Your task to perform on an android device: turn off data saver in the chrome app Image 0: 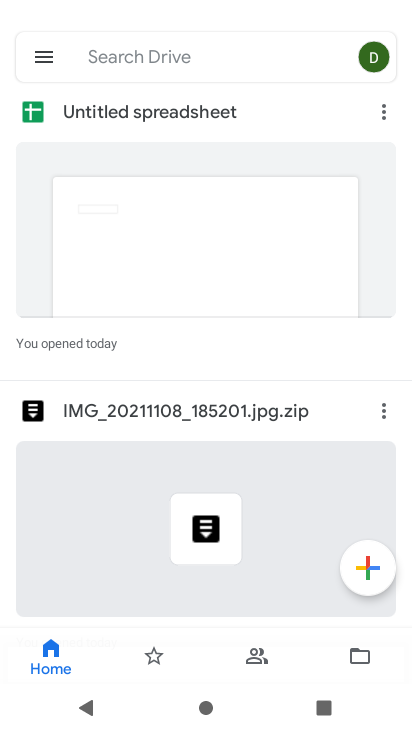
Step 0: press home button
Your task to perform on an android device: turn off data saver in the chrome app Image 1: 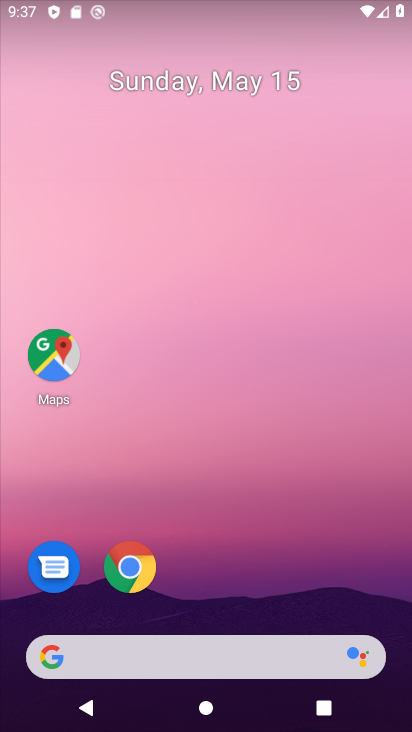
Step 1: click (133, 570)
Your task to perform on an android device: turn off data saver in the chrome app Image 2: 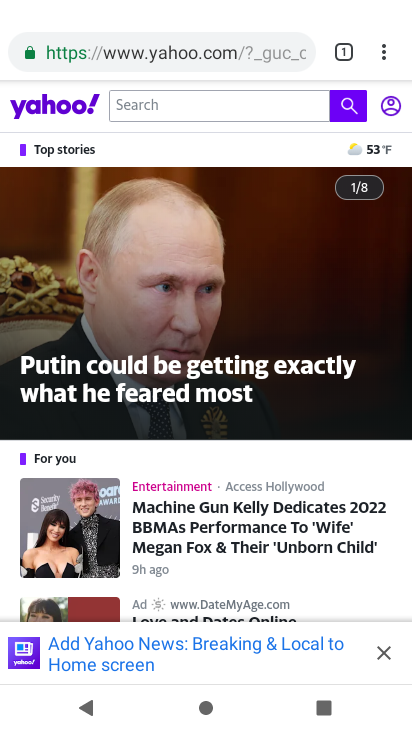
Step 2: click (373, 47)
Your task to perform on an android device: turn off data saver in the chrome app Image 3: 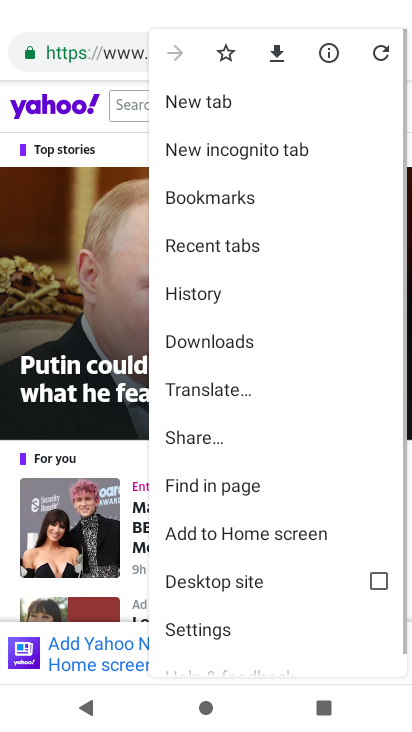
Step 3: click (234, 627)
Your task to perform on an android device: turn off data saver in the chrome app Image 4: 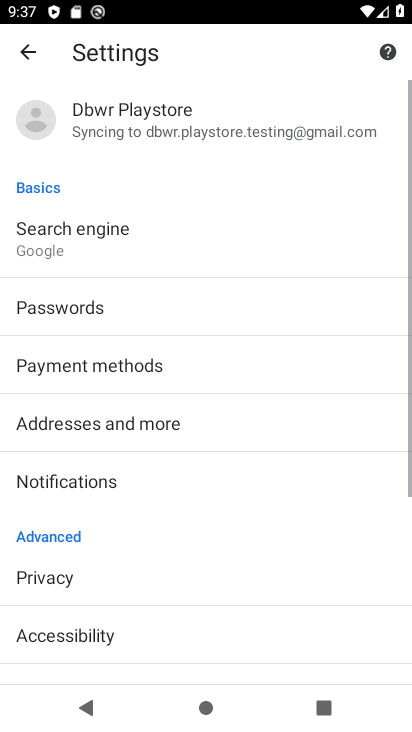
Step 4: drag from (233, 622) to (252, 121)
Your task to perform on an android device: turn off data saver in the chrome app Image 5: 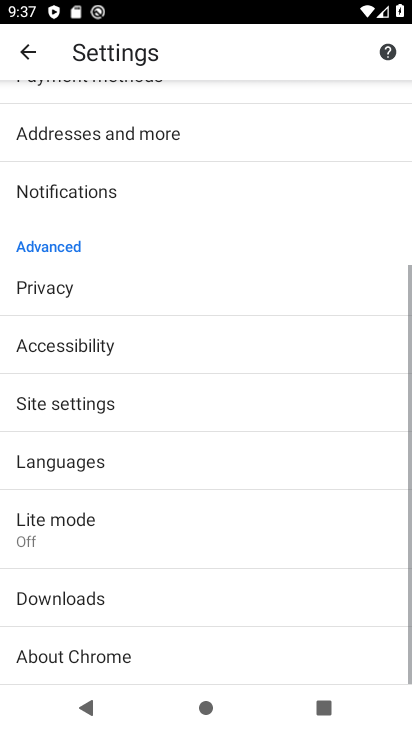
Step 5: click (83, 531)
Your task to perform on an android device: turn off data saver in the chrome app Image 6: 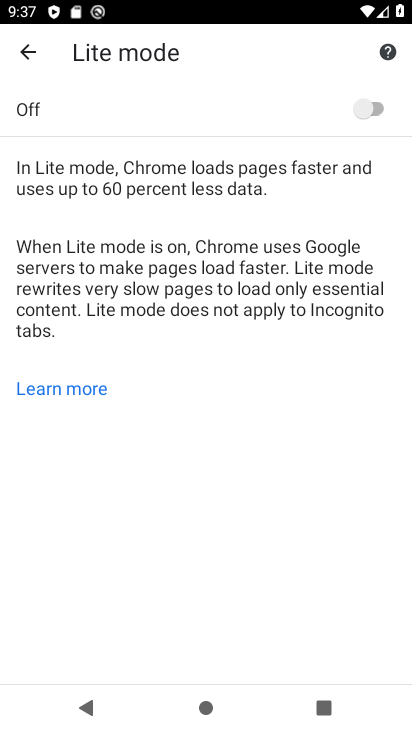
Step 6: task complete